Your task to perform on an android device: Open Android settings Image 0: 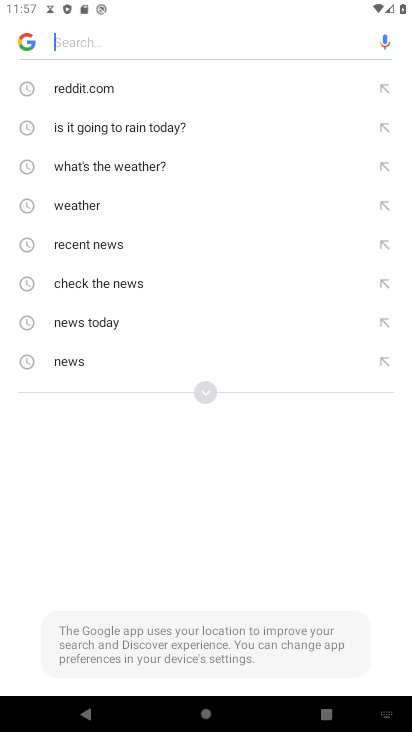
Step 0: press home button
Your task to perform on an android device: Open Android settings Image 1: 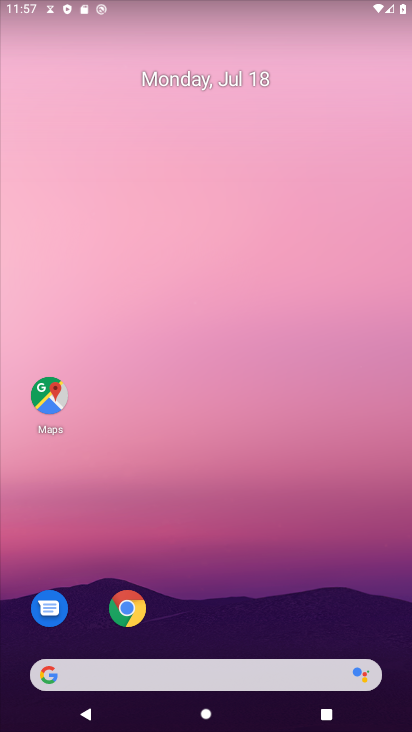
Step 1: drag from (281, 608) to (237, 18)
Your task to perform on an android device: Open Android settings Image 2: 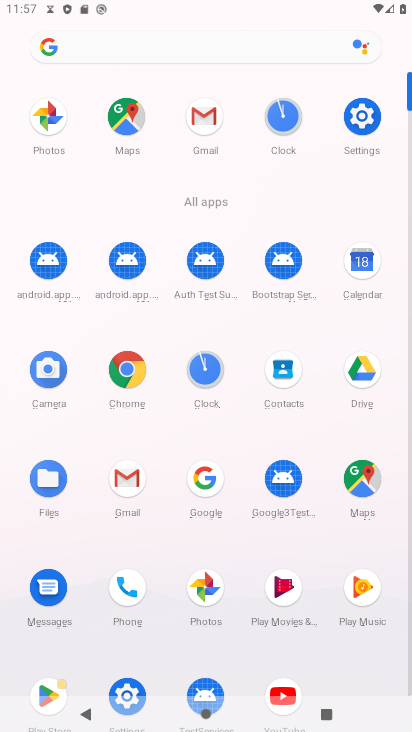
Step 2: click (360, 114)
Your task to perform on an android device: Open Android settings Image 3: 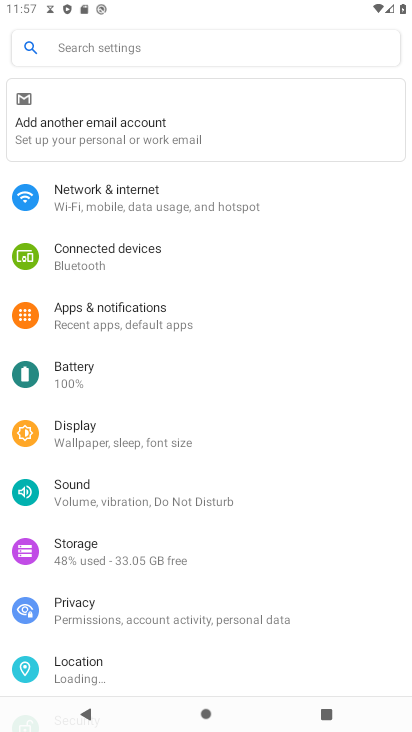
Step 3: task complete